Your task to perform on an android device: Go to privacy settings Image 0: 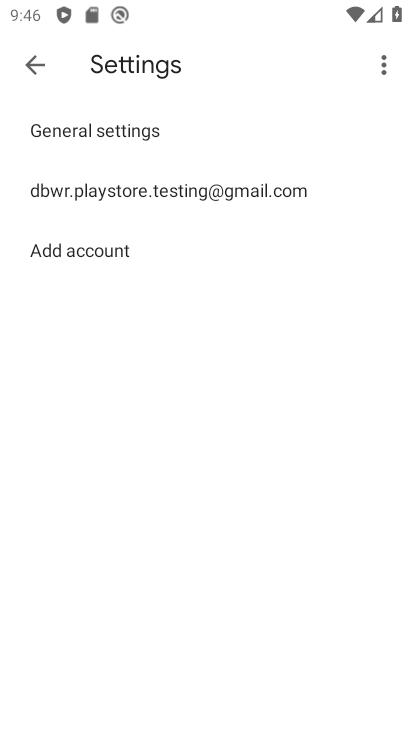
Step 0: press home button
Your task to perform on an android device: Go to privacy settings Image 1: 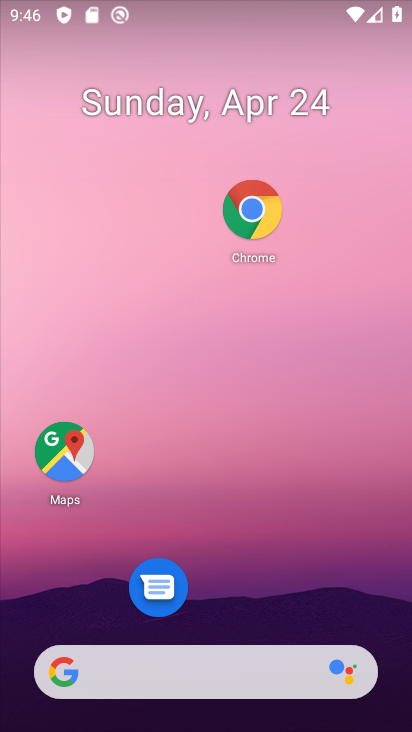
Step 1: drag from (203, 624) to (203, 60)
Your task to perform on an android device: Go to privacy settings Image 2: 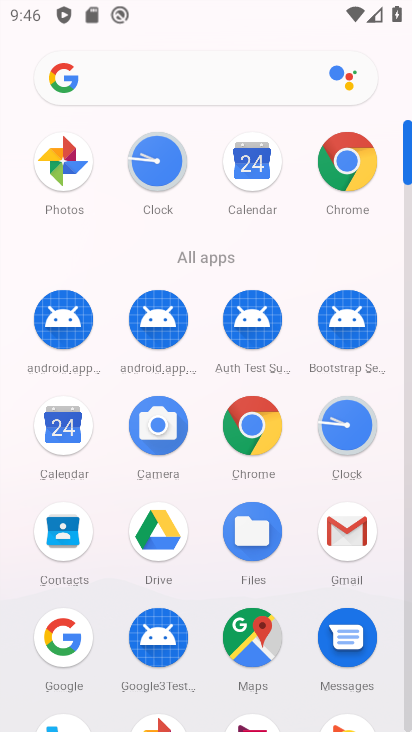
Step 2: drag from (202, 670) to (222, 171)
Your task to perform on an android device: Go to privacy settings Image 3: 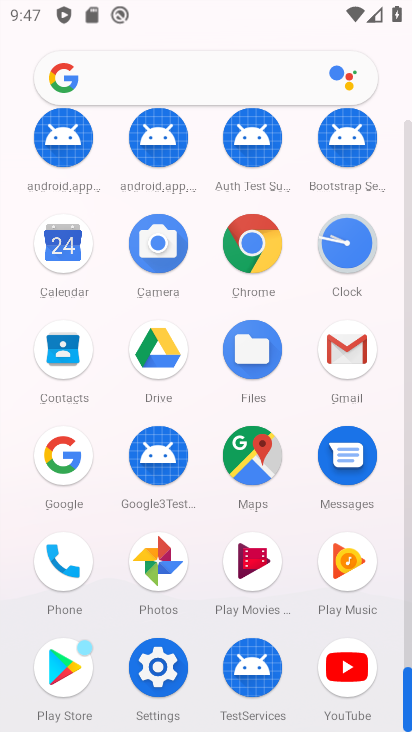
Step 3: click (156, 655)
Your task to perform on an android device: Go to privacy settings Image 4: 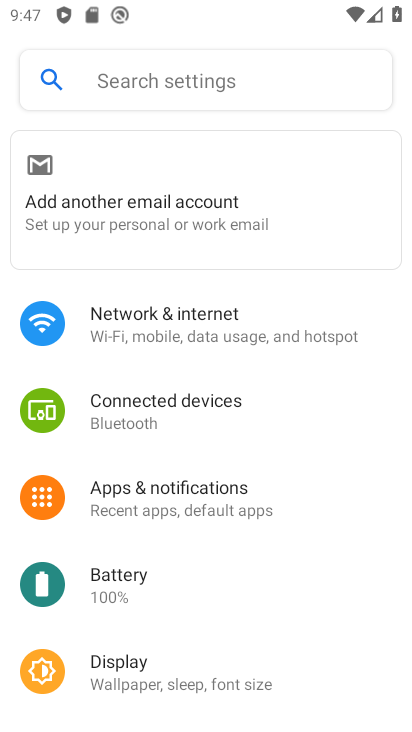
Step 4: drag from (194, 653) to (190, 133)
Your task to perform on an android device: Go to privacy settings Image 5: 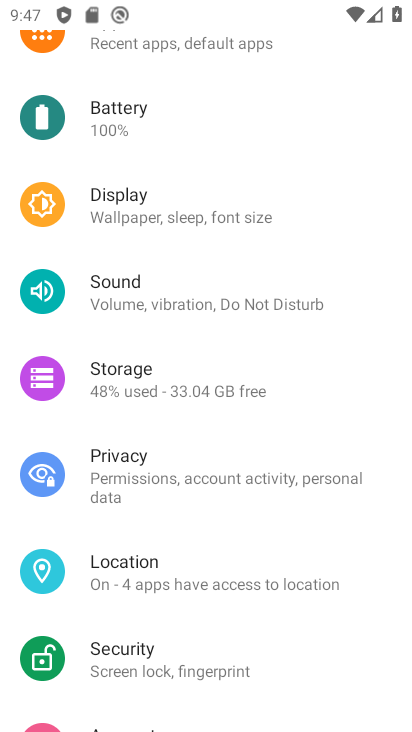
Step 5: click (157, 457)
Your task to perform on an android device: Go to privacy settings Image 6: 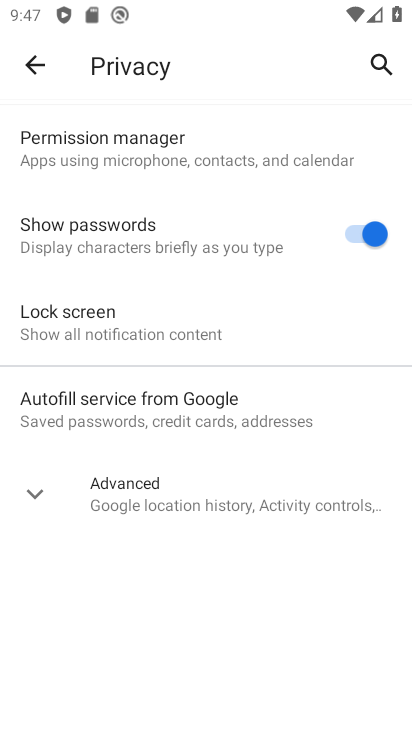
Step 6: click (37, 484)
Your task to perform on an android device: Go to privacy settings Image 7: 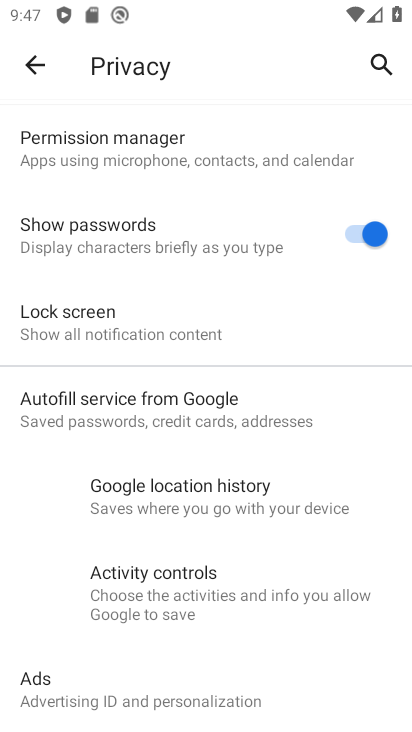
Step 7: task complete